Your task to perform on an android device: Open the calendar app, open the side menu, and click the "Day" option Image 0: 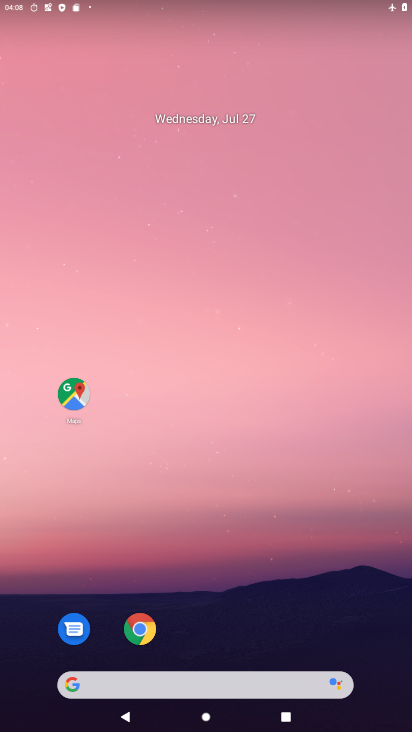
Step 0: drag from (282, 472) to (255, 49)
Your task to perform on an android device: Open the calendar app, open the side menu, and click the "Day" option Image 1: 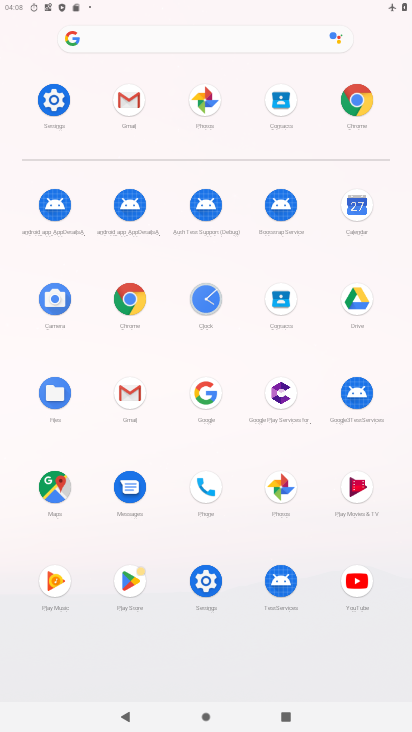
Step 1: click (364, 204)
Your task to perform on an android device: Open the calendar app, open the side menu, and click the "Day" option Image 2: 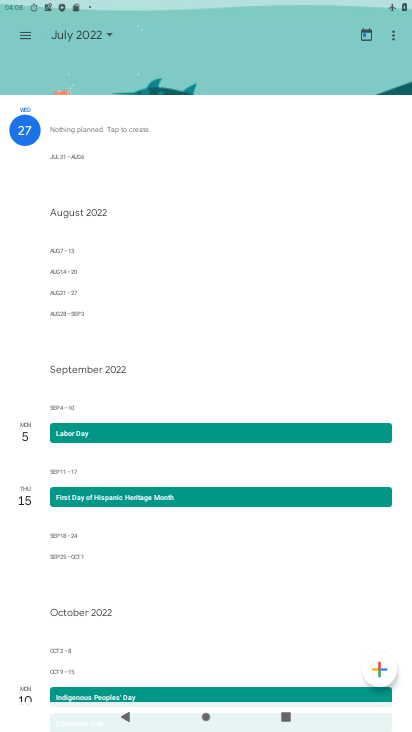
Step 2: click (32, 40)
Your task to perform on an android device: Open the calendar app, open the side menu, and click the "Day" option Image 3: 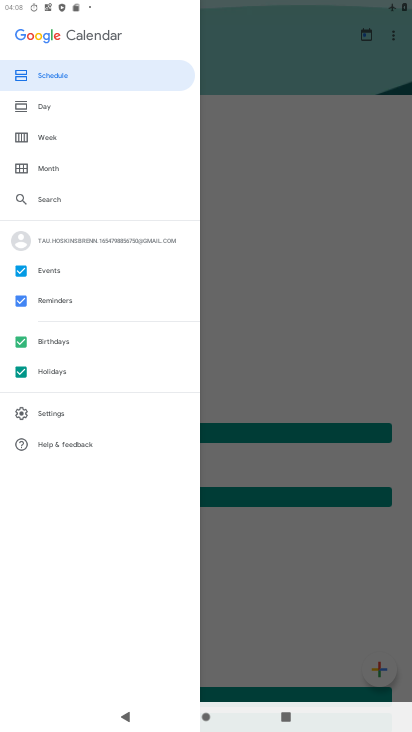
Step 3: click (45, 109)
Your task to perform on an android device: Open the calendar app, open the side menu, and click the "Day" option Image 4: 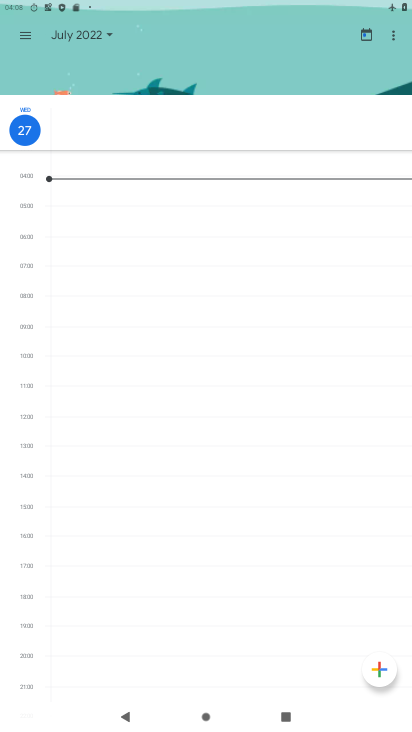
Step 4: task complete